Your task to perform on an android device: toggle show notifications on the lock screen Image 0: 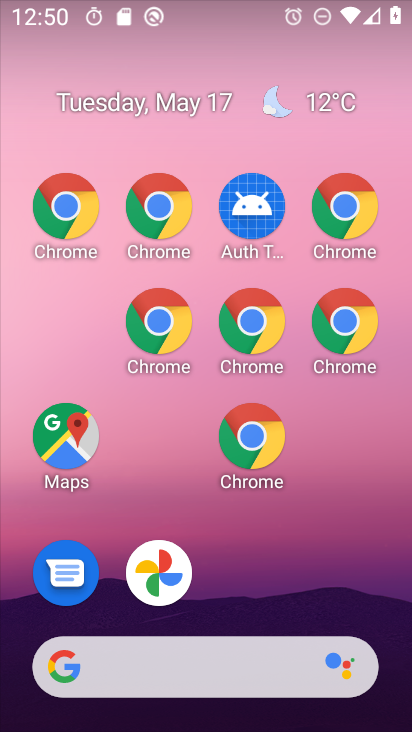
Step 0: drag from (385, 671) to (236, 249)
Your task to perform on an android device: toggle show notifications on the lock screen Image 1: 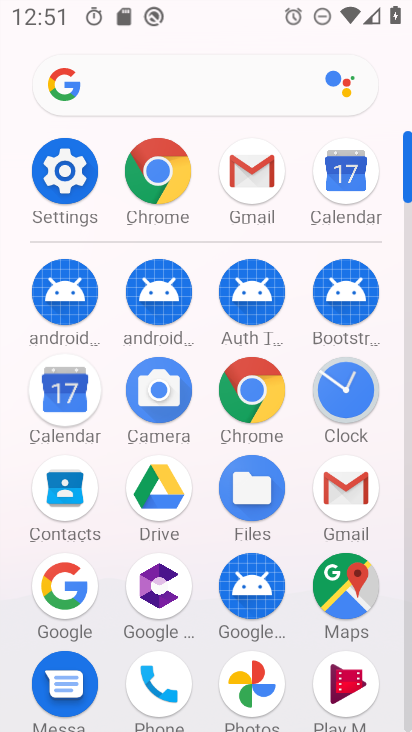
Step 1: click (62, 168)
Your task to perform on an android device: toggle show notifications on the lock screen Image 2: 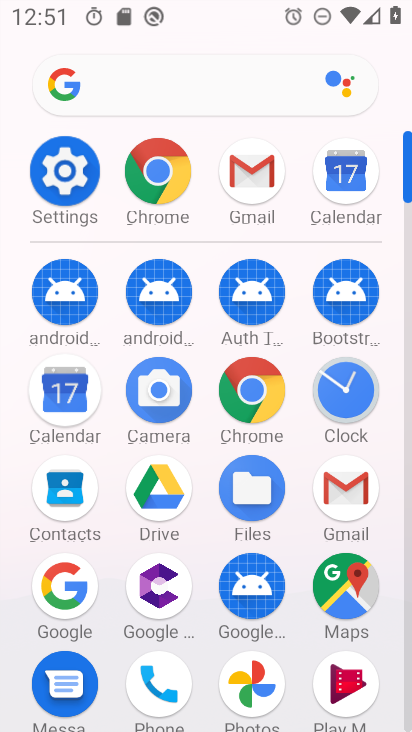
Step 2: click (62, 168)
Your task to perform on an android device: toggle show notifications on the lock screen Image 3: 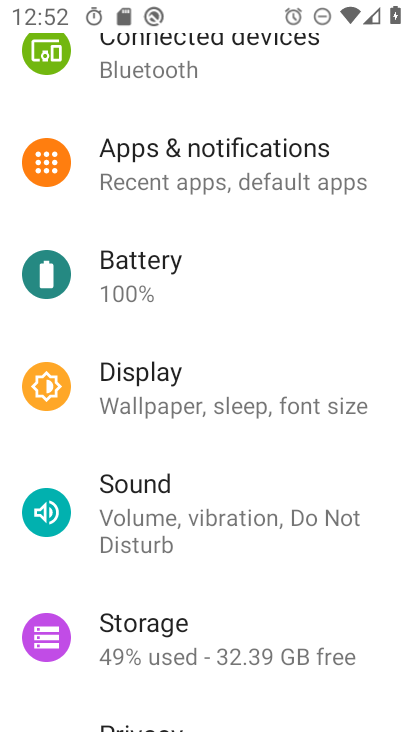
Step 3: click (197, 164)
Your task to perform on an android device: toggle show notifications on the lock screen Image 4: 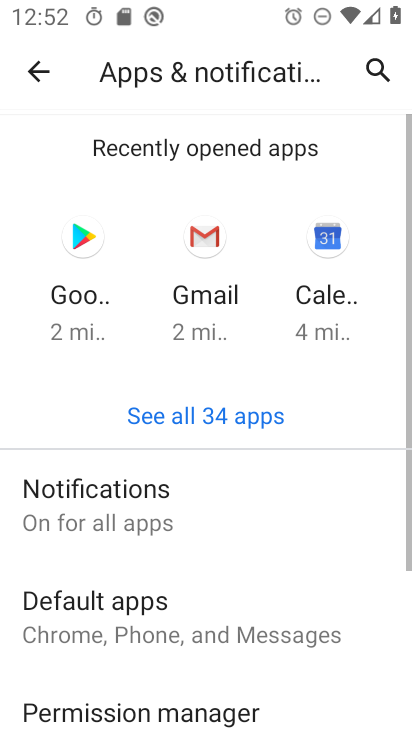
Step 4: click (122, 523)
Your task to perform on an android device: toggle show notifications on the lock screen Image 5: 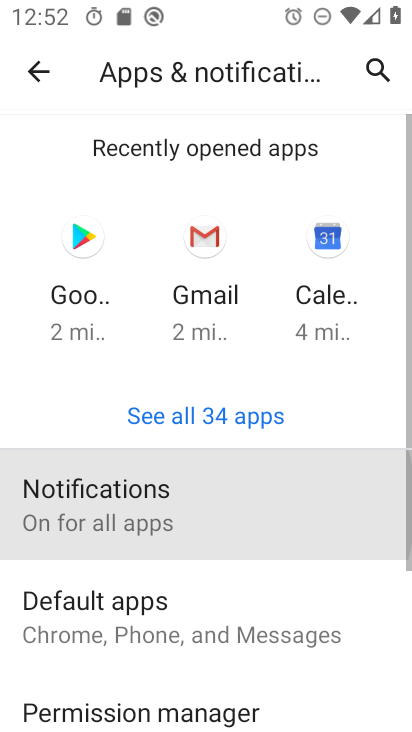
Step 5: click (123, 522)
Your task to perform on an android device: toggle show notifications on the lock screen Image 6: 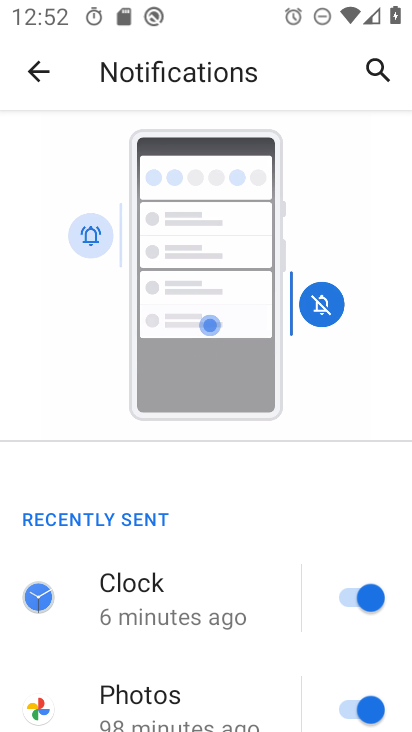
Step 6: drag from (157, 612) to (144, 176)
Your task to perform on an android device: toggle show notifications on the lock screen Image 7: 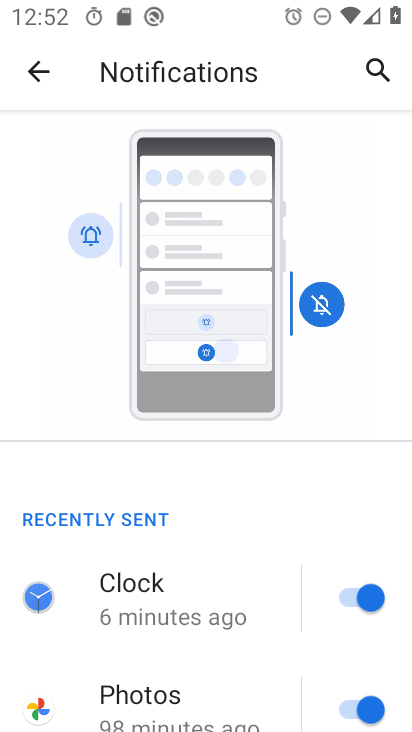
Step 7: drag from (234, 387) to (269, 31)
Your task to perform on an android device: toggle show notifications on the lock screen Image 8: 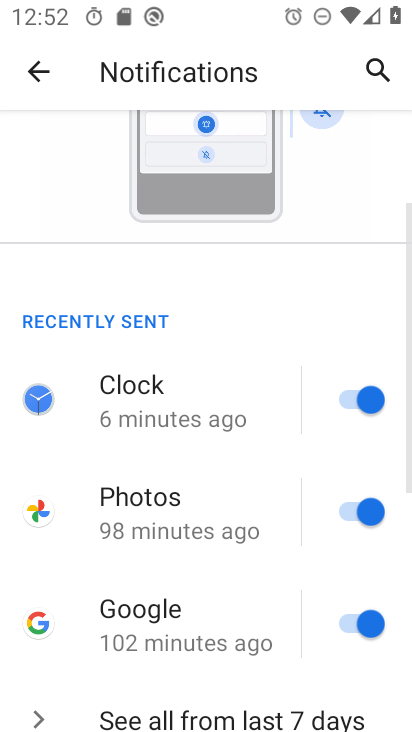
Step 8: drag from (222, 307) to (220, 0)
Your task to perform on an android device: toggle show notifications on the lock screen Image 9: 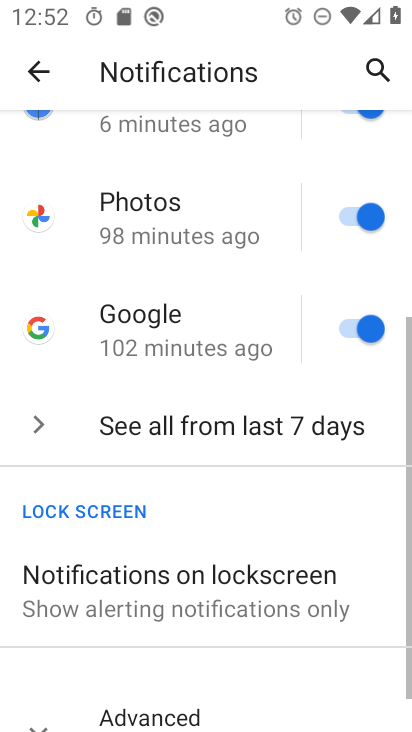
Step 9: drag from (230, 580) to (180, 25)
Your task to perform on an android device: toggle show notifications on the lock screen Image 10: 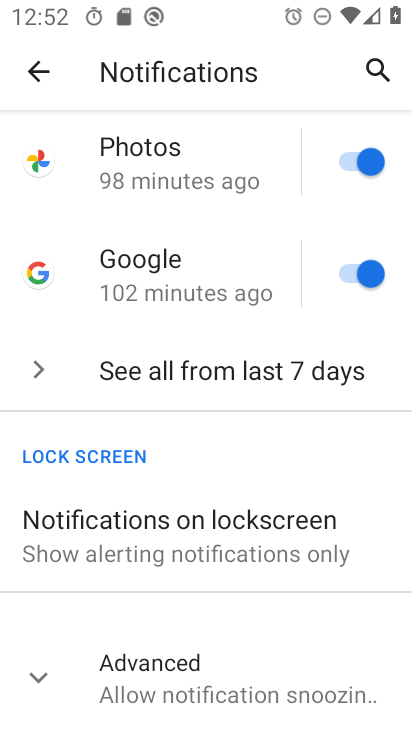
Step 10: click (135, 520)
Your task to perform on an android device: toggle show notifications on the lock screen Image 11: 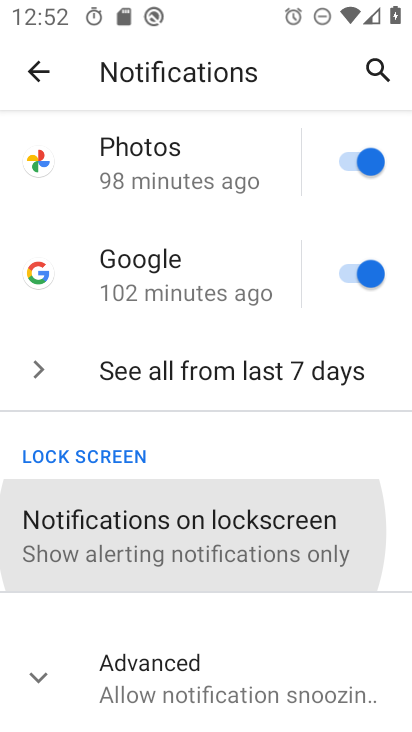
Step 11: click (148, 508)
Your task to perform on an android device: toggle show notifications on the lock screen Image 12: 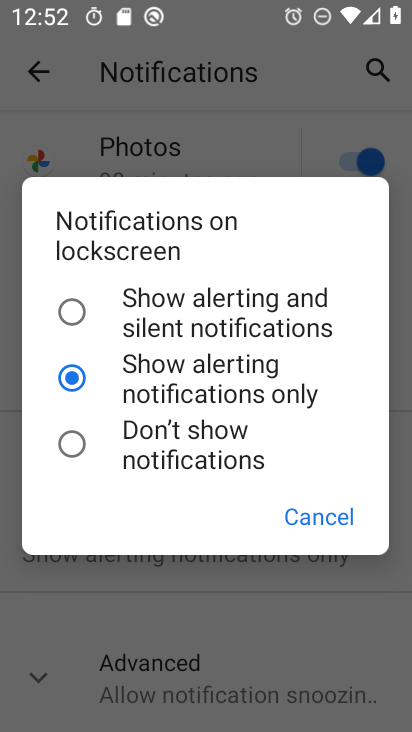
Step 12: click (80, 305)
Your task to perform on an android device: toggle show notifications on the lock screen Image 13: 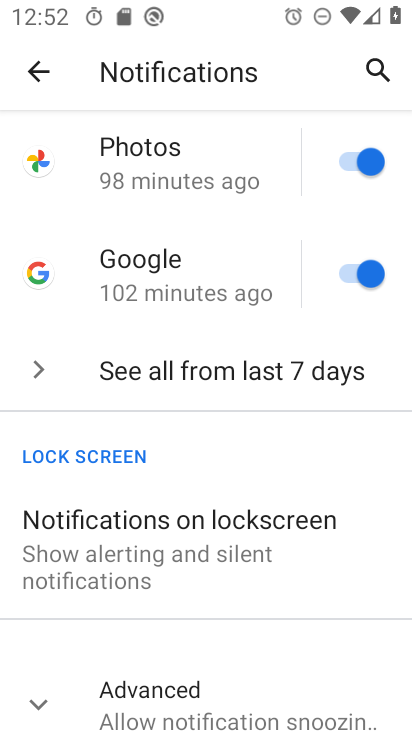
Step 13: click (143, 529)
Your task to perform on an android device: toggle show notifications on the lock screen Image 14: 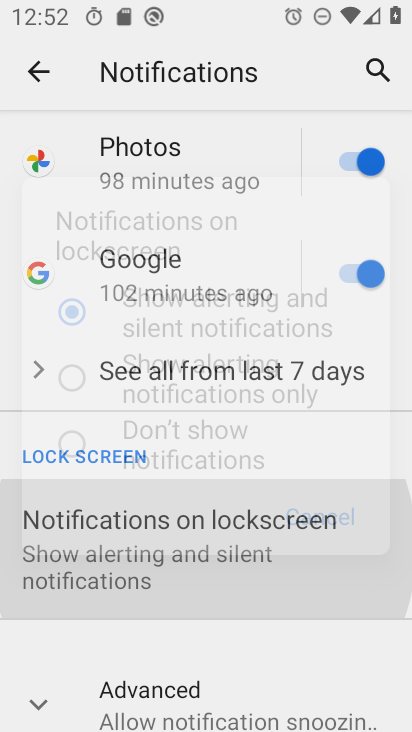
Step 14: click (143, 529)
Your task to perform on an android device: toggle show notifications on the lock screen Image 15: 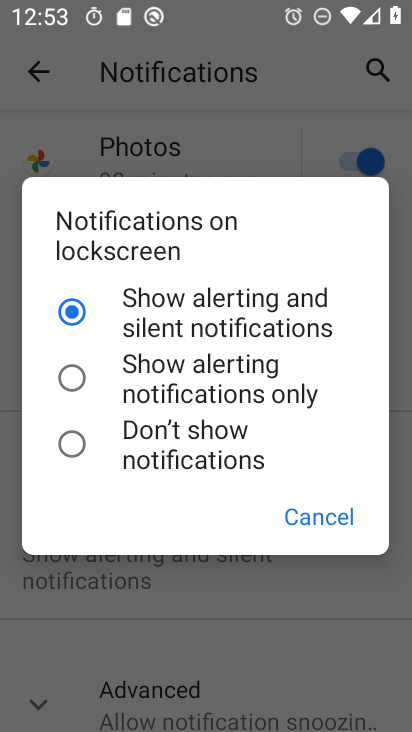
Step 15: click (406, 390)
Your task to perform on an android device: toggle show notifications on the lock screen Image 16: 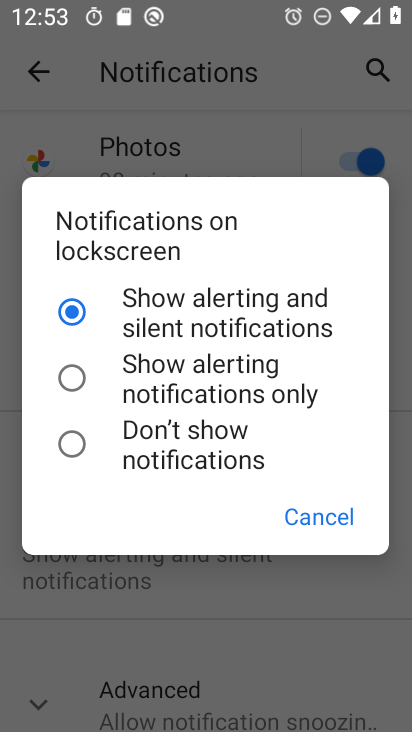
Step 16: task complete